Your task to perform on an android device: turn pop-ups on in chrome Image 0: 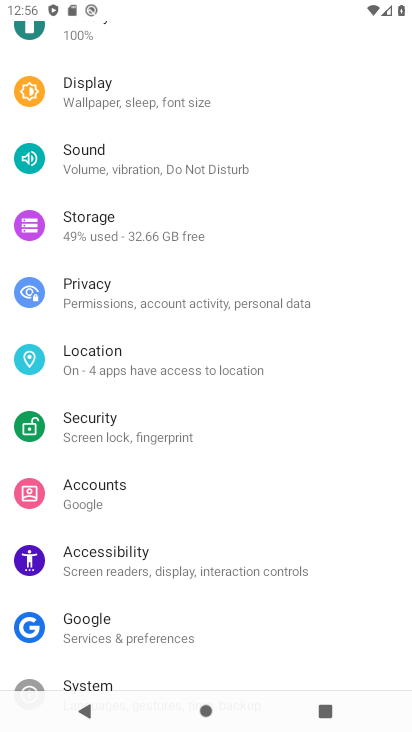
Step 0: press home button
Your task to perform on an android device: turn pop-ups on in chrome Image 1: 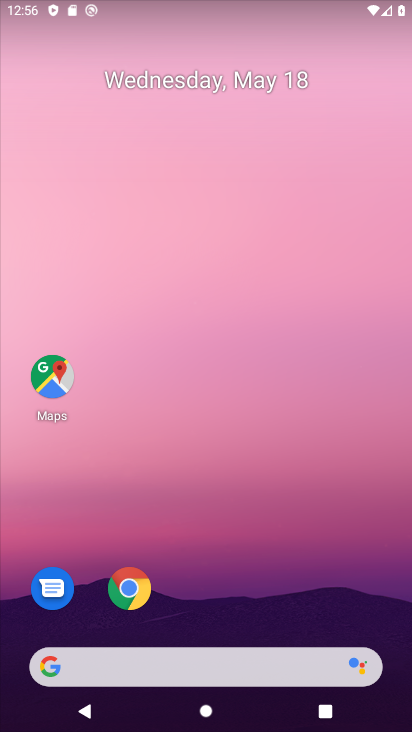
Step 1: drag from (314, 311) to (314, 158)
Your task to perform on an android device: turn pop-ups on in chrome Image 2: 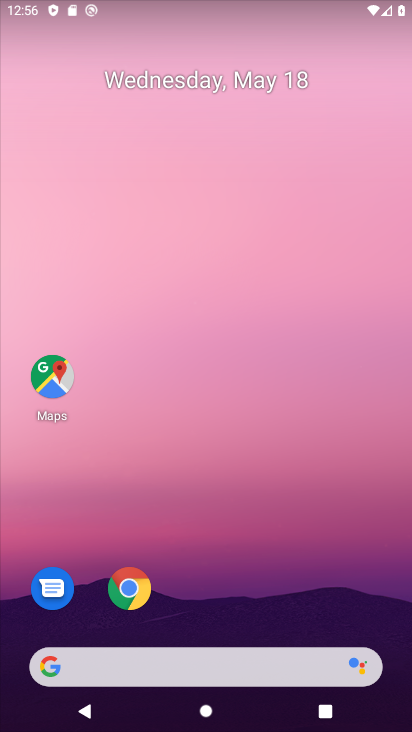
Step 2: drag from (355, 572) to (362, 249)
Your task to perform on an android device: turn pop-ups on in chrome Image 3: 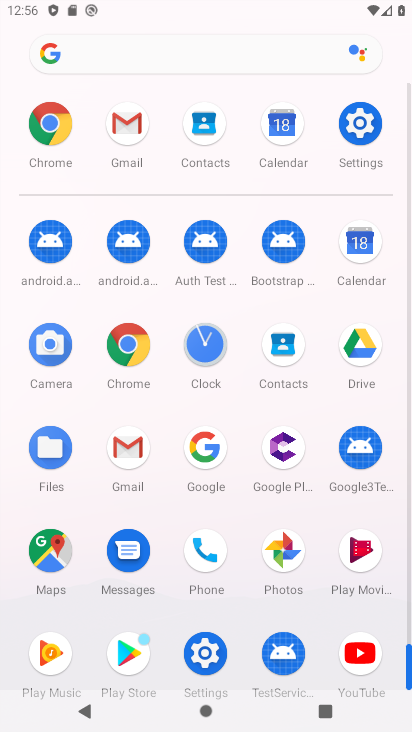
Step 3: click (140, 342)
Your task to perform on an android device: turn pop-ups on in chrome Image 4: 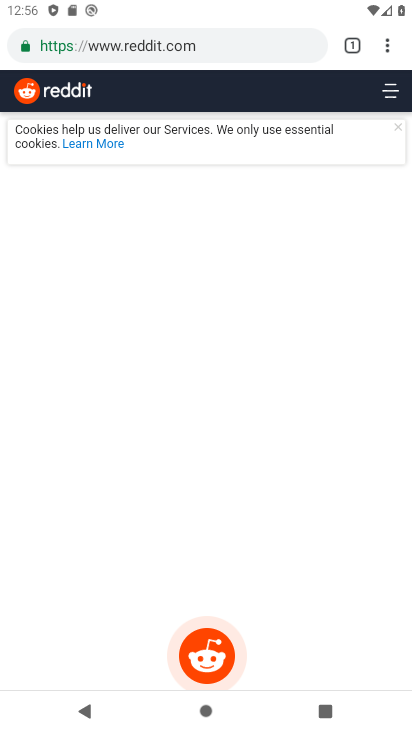
Step 4: click (384, 44)
Your task to perform on an android device: turn pop-ups on in chrome Image 5: 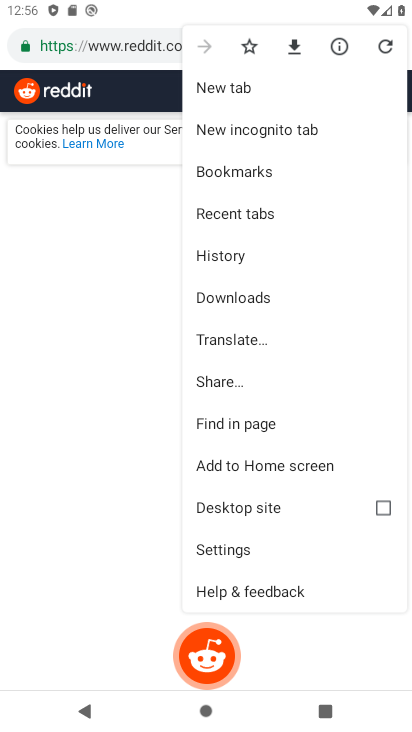
Step 5: click (243, 553)
Your task to perform on an android device: turn pop-ups on in chrome Image 6: 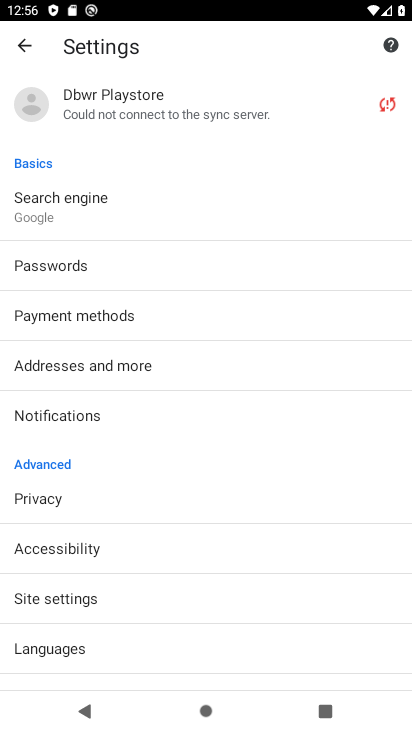
Step 6: drag from (277, 599) to (300, 421)
Your task to perform on an android device: turn pop-ups on in chrome Image 7: 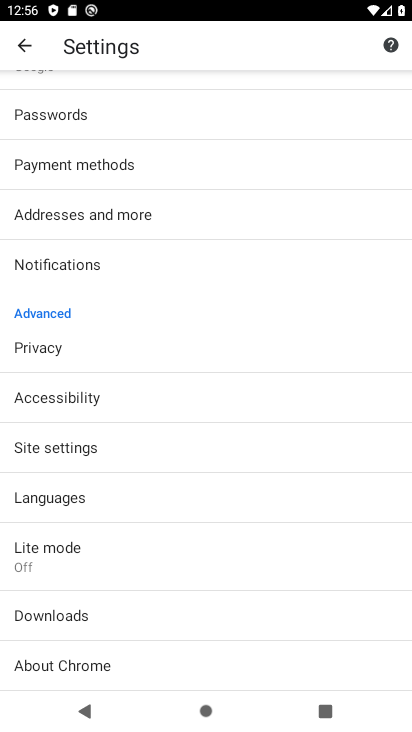
Step 7: drag from (297, 621) to (301, 458)
Your task to perform on an android device: turn pop-ups on in chrome Image 8: 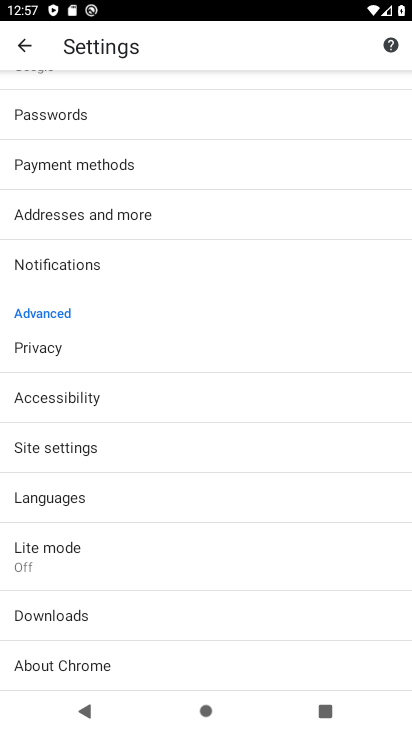
Step 8: drag from (299, 311) to (297, 488)
Your task to perform on an android device: turn pop-ups on in chrome Image 9: 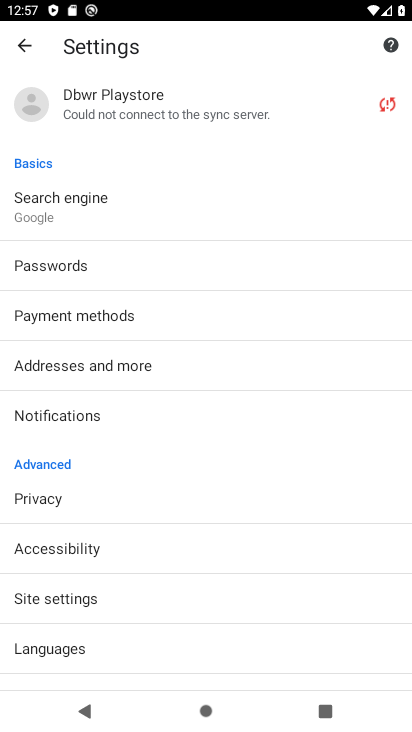
Step 9: drag from (287, 295) to (288, 480)
Your task to perform on an android device: turn pop-ups on in chrome Image 10: 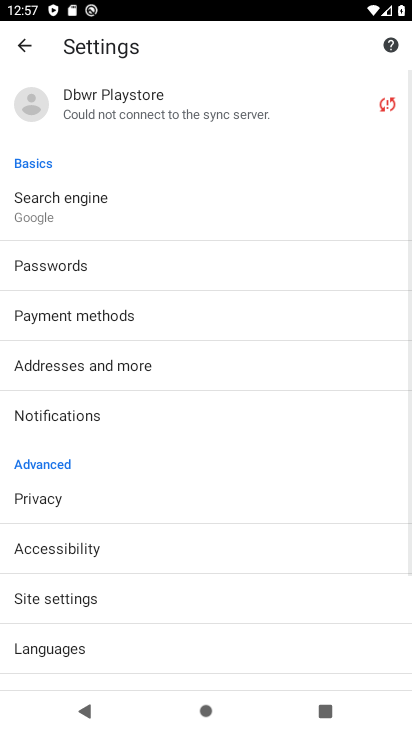
Step 10: drag from (281, 605) to (268, 437)
Your task to perform on an android device: turn pop-ups on in chrome Image 11: 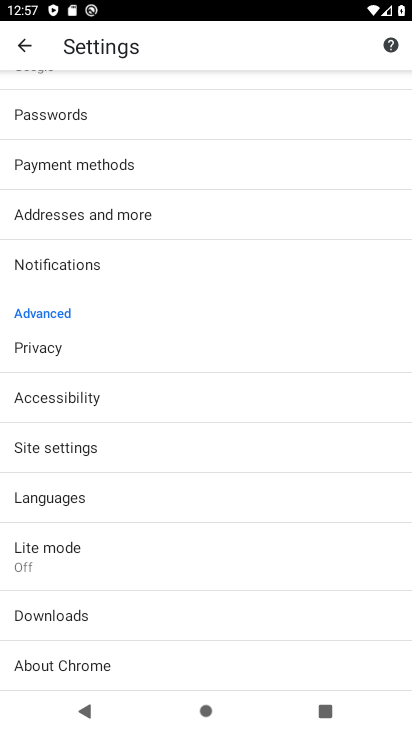
Step 11: click (242, 441)
Your task to perform on an android device: turn pop-ups on in chrome Image 12: 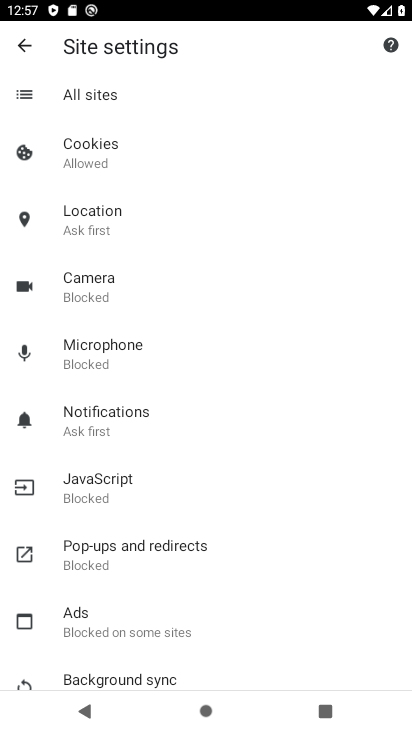
Step 12: drag from (284, 548) to (283, 348)
Your task to perform on an android device: turn pop-ups on in chrome Image 13: 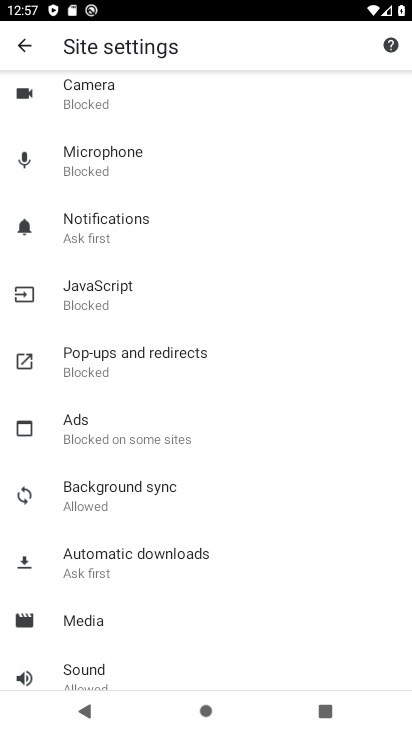
Step 13: drag from (283, 551) to (285, 363)
Your task to perform on an android device: turn pop-ups on in chrome Image 14: 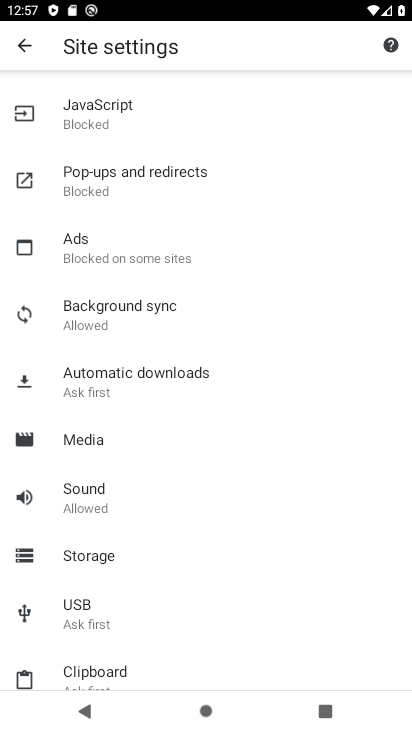
Step 14: drag from (281, 499) to (291, 326)
Your task to perform on an android device: turn pop-ups on in chrome Image 15: 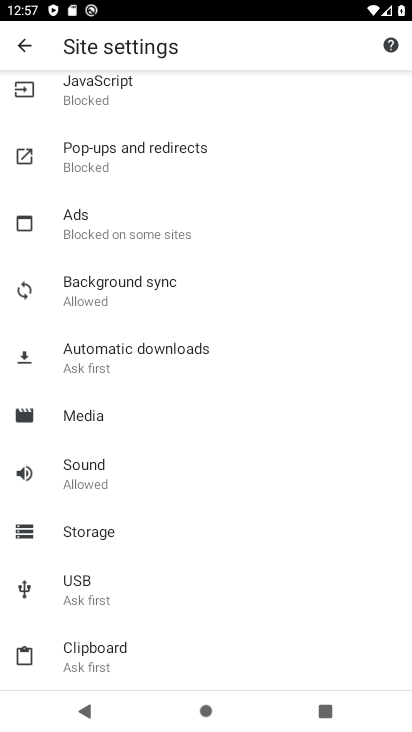
Step 15: drag from (264, 594) to (282, 370)
Your task to perform on an android device: turn pop-ups on in chrome Image 16: 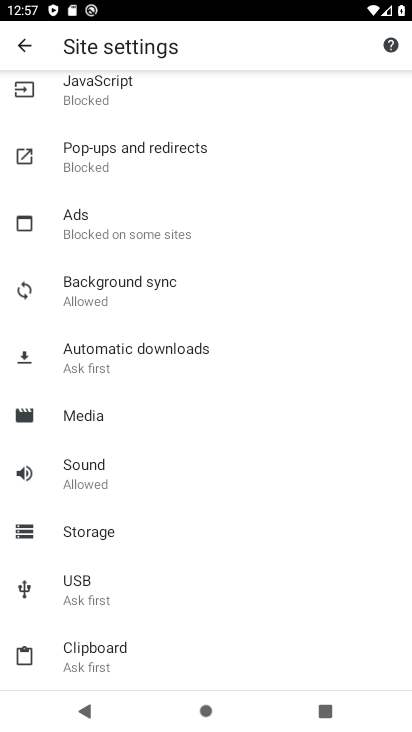
Step 16: drag from (282, 292) to (280, 499)
Your task to perform on an android device: turn pop-ups on in chrome Image 17: 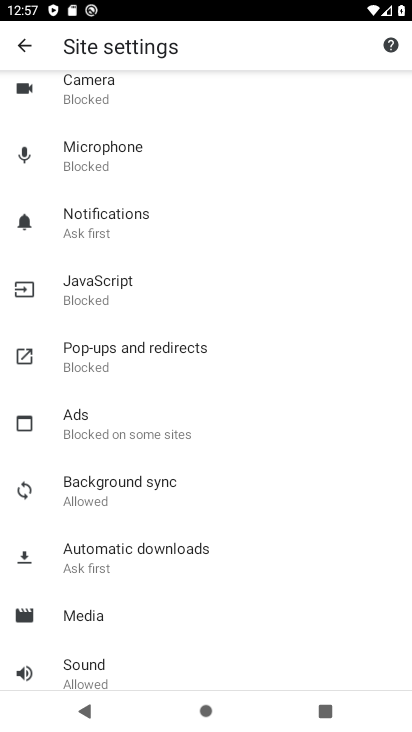
Step 17: click (158, 348)
Your task to perform on an android device: turn pop-ups on in chrome Image 18: 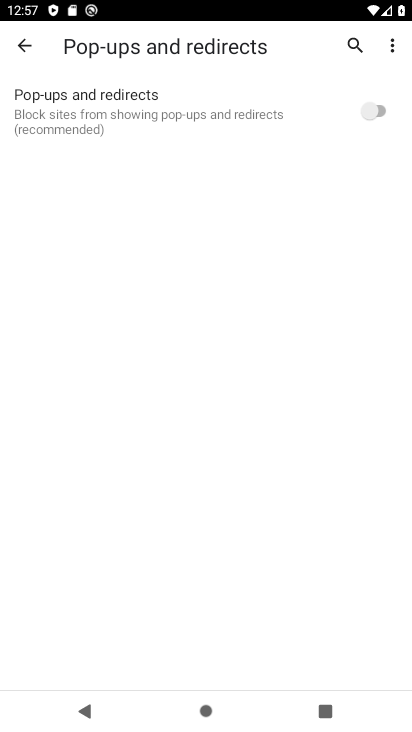
Step 18: click (374, 109)
Your task to perform on an android device: turn pop-ups on in chrome Image 19: 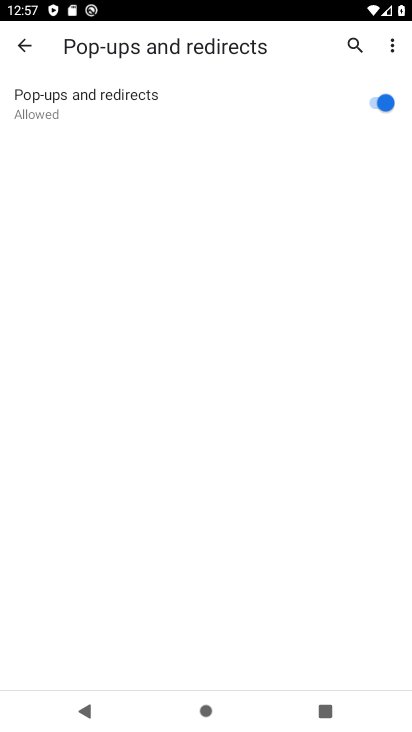
Step 19: task complete